Your task to perform on an android device: Open calendar and show me the second week of next month Image 0: 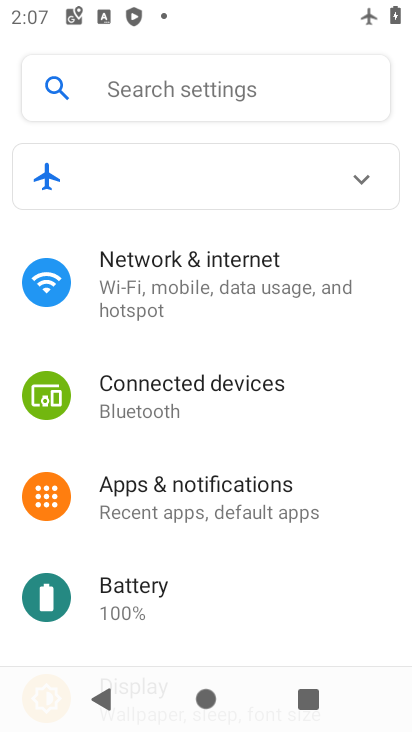
Step 0: press home button
Your task to perform on an android device: Open calendar and show me the second week of next month Image 1: 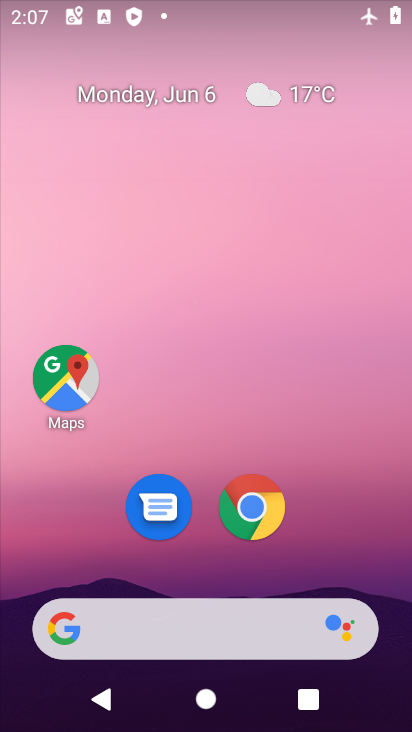
Step 1: drag from (212, 420) to (216, 0)
Your task to perform on an android device: Open calendar and show me the second week of next month Image 2: 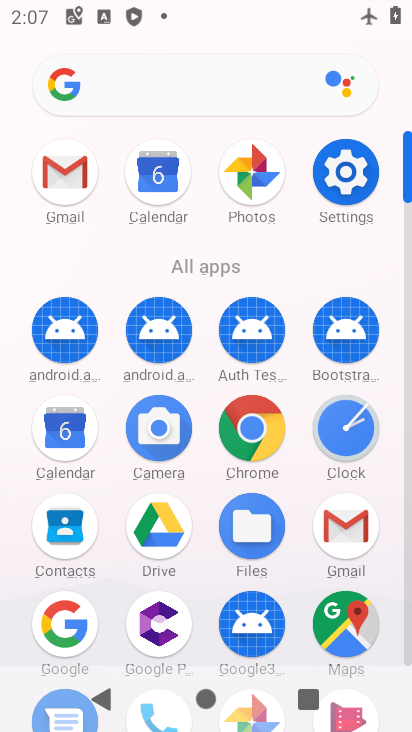
Step 2: click (154, 174)
Your task to perform on an android device: Open calendar and show me the second week of next month Image 3: 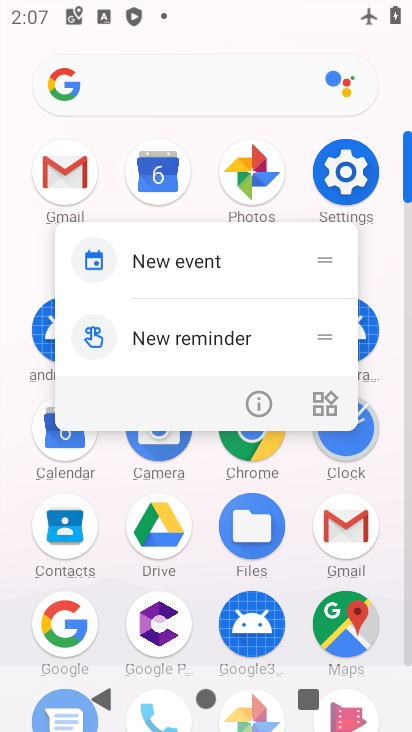
Step 3: click (154, 173)
Your task to perform on an android device: Open calendar and show me the second week of next month Image 4: 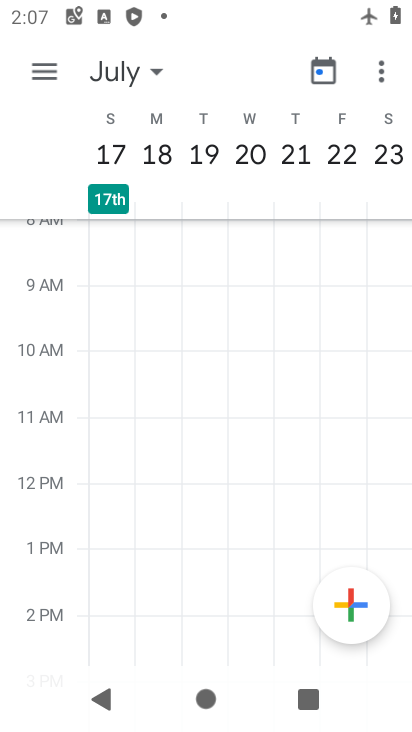
Step 4: task complete